Your task to perform on an android device: toggle show notifications on the lock screen Image 0: 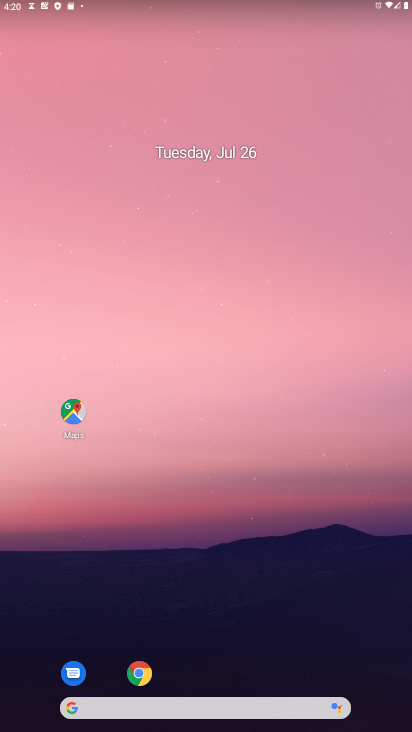
Step 0: drag from (194, 709) to (192, 98)
Your task to perform on an android device: toggle show notifications on the lock screen Image 1: 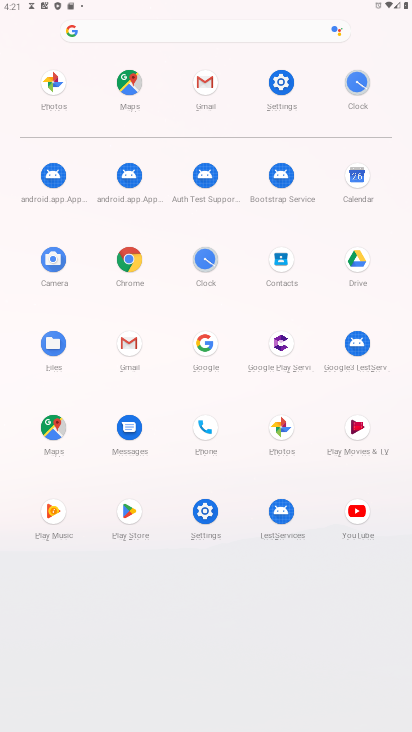
Step 1: click (281, 82)
Your task to perform on an android device: toggle show notifications on the lock screen Image 2: 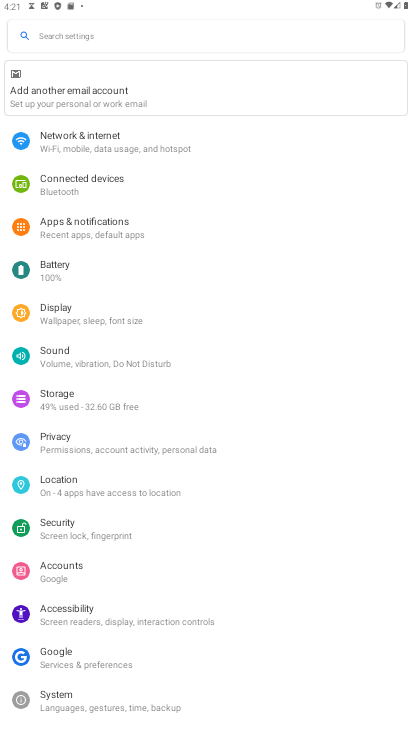
Step 2: click (78, 226)
Your task to perform on an android device: toggle show notifications on the lock screen Image 3: 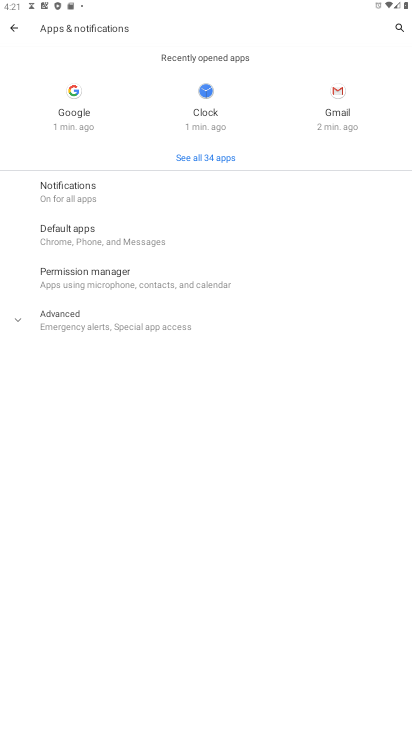
Step 3: click (84, 196)
Your task to perform on an android device: toggle show notifications on the lock screen Image 4: 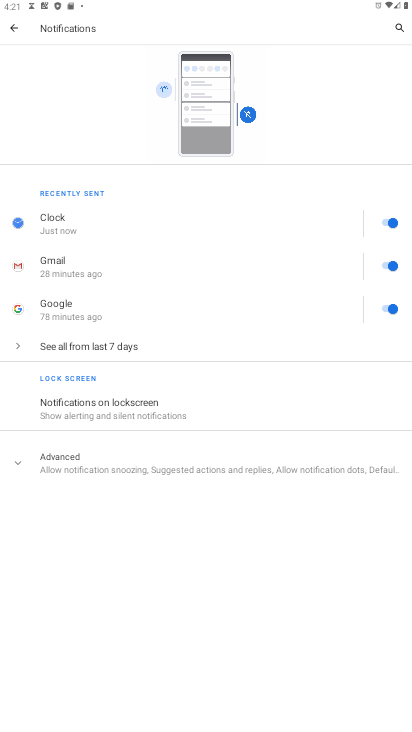
Step 4: click (97, 414)
Your task to perform on an android device: toggle show notifications on the lock screen Image 5: 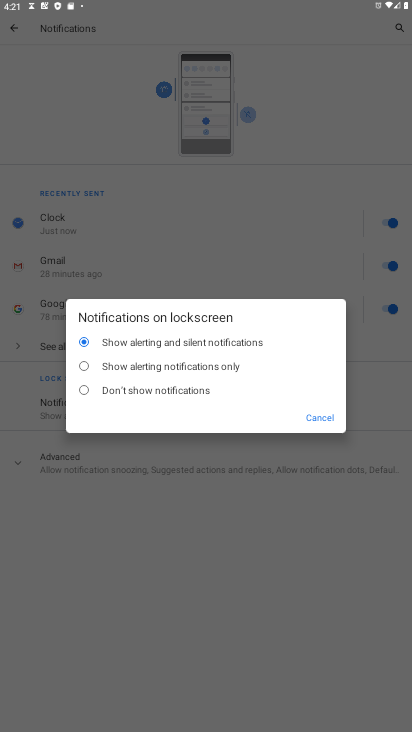
Step 5: click (82, 386)
Your task to perform on an android device: toggle show notifications on the lock screen Image 6: 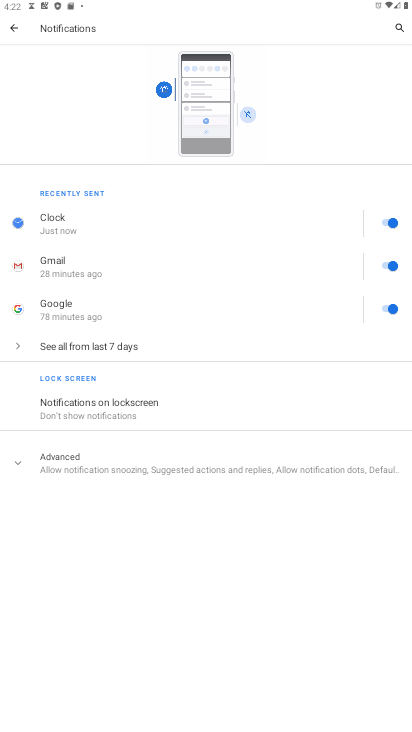
Step 6: task complete